Your task to perform on an android device: Open network settings Image 0: 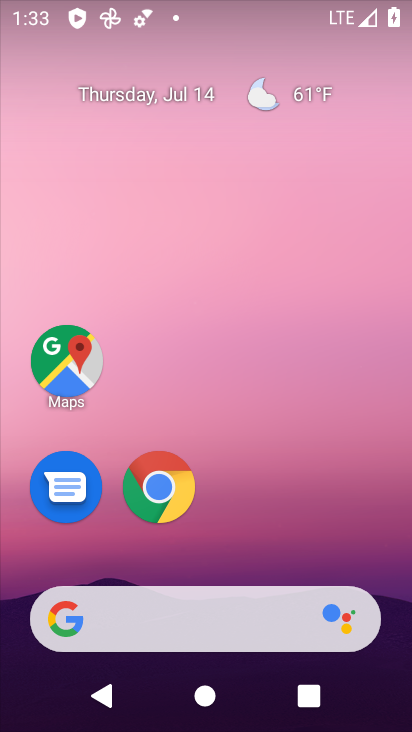
Step 0: drag from (354, 480) to (401, 118)
Your task to perform on an android device: Open network settings Image 1: 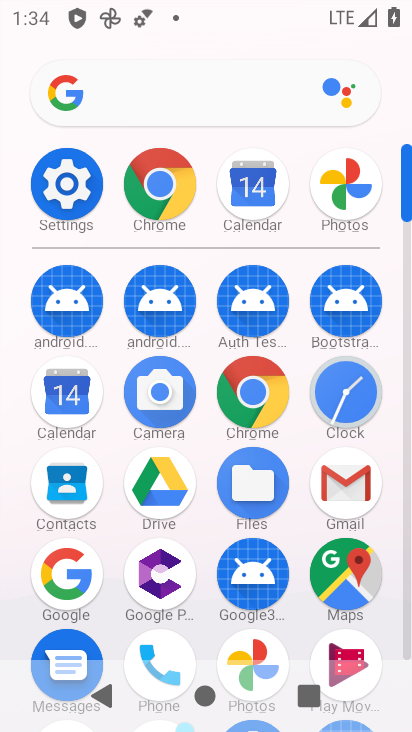
Step 1: click (70, 193)
Your task to perform on an android device: Open network settings Image 2: 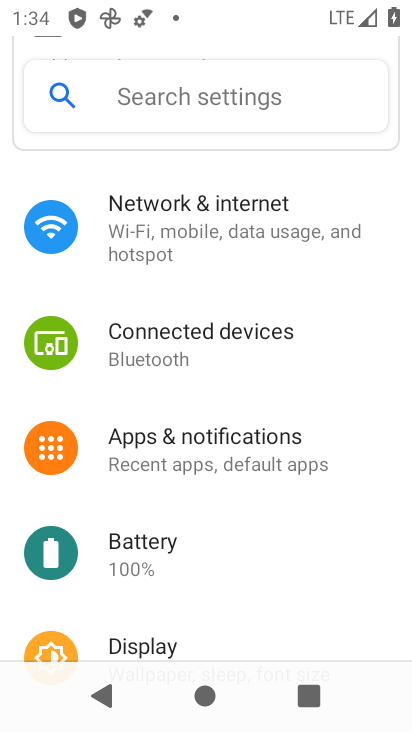
Step 2: drag from (350, 574) to (383, 276)
Your task to perform on an android device: Open network settings Image 3: 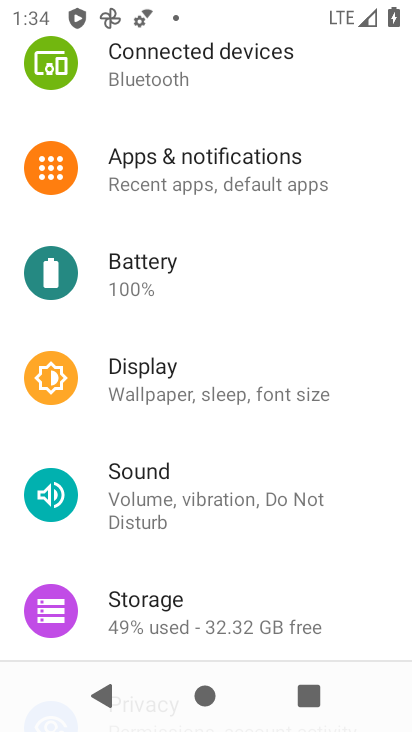
Step 3: drag from (355, 617) to (362, 487)
Your task to perform on an android device: Open network settings Image 4: 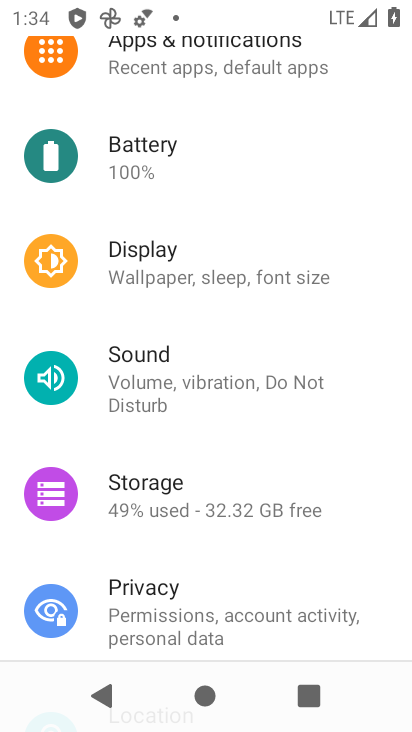
Step 4: drag from (364, 612) to (380, 463)
Your task to perform on an android device: Open network settings Image 5: 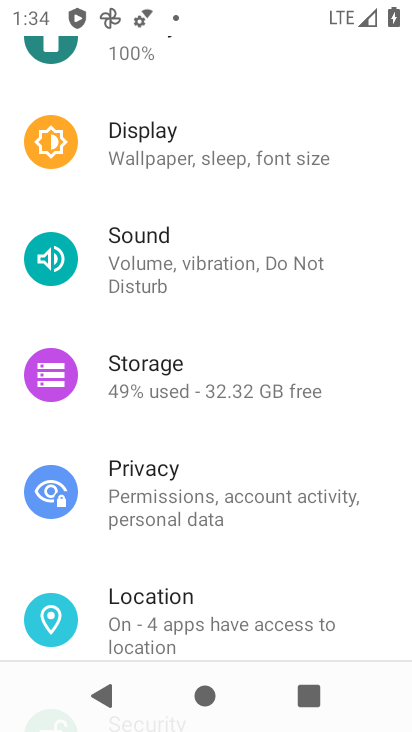
Step 5: drag from (335, 574) to (344, 370)
Your task to perform on an android device: Open network settings Image 6: 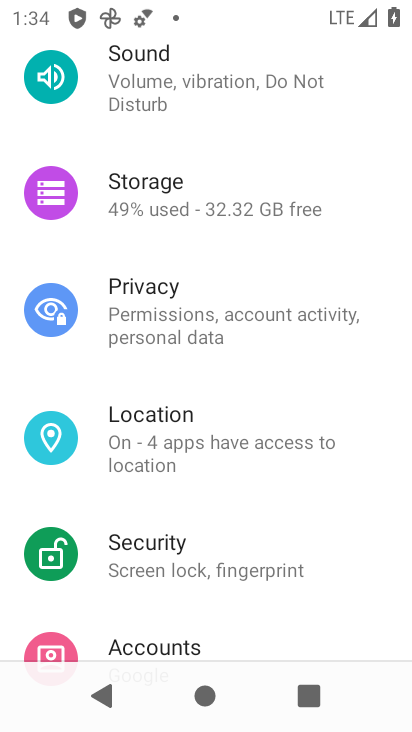
Step 6: drag from (367, 533) to (358, 308)
Your task to perform on an android device: Open network settings Image 7: 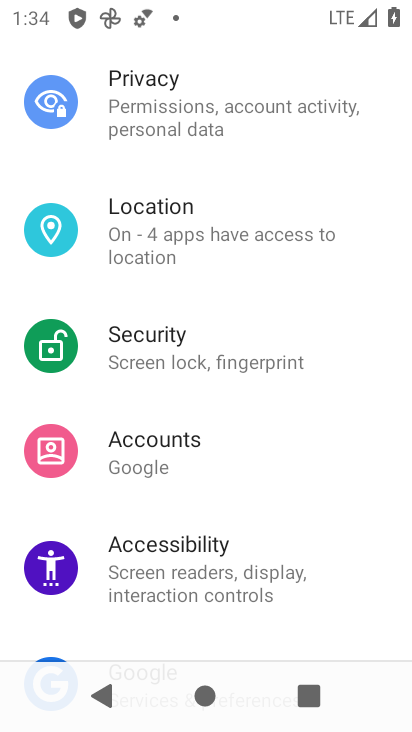
Step 7: drag from (360, 515) to (348, 326)
Your task to perform on an android device: Open network settings Image 8: 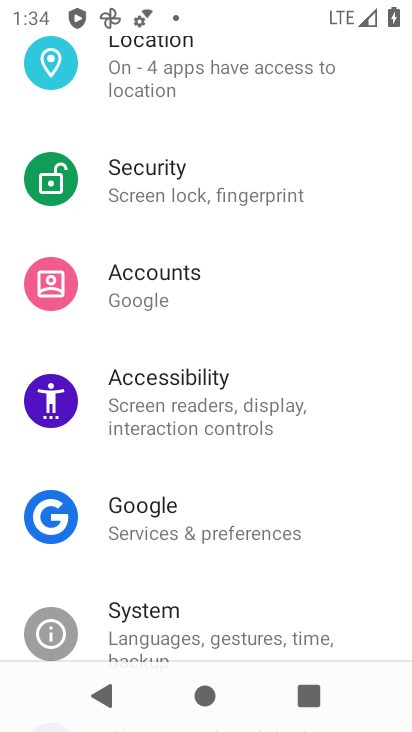
Step 8: drag from (331, 468) to (337, 276)
Your task to perform on an android device: Open network settings Image 9: 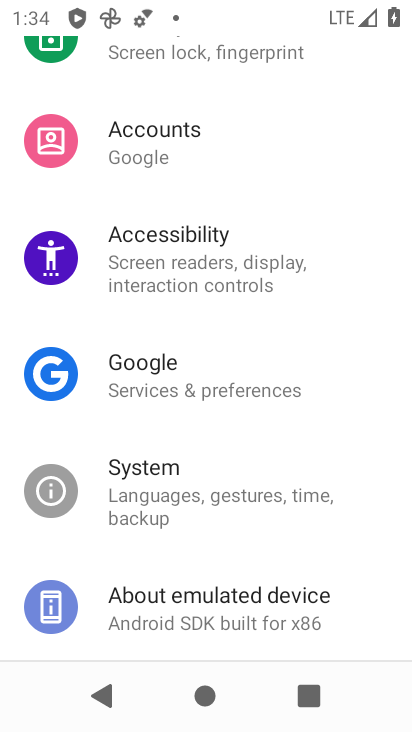
Step 9: drag from (349, 293) to (359, 407)
Your task to perform on an android device: Open network settings Image 10: 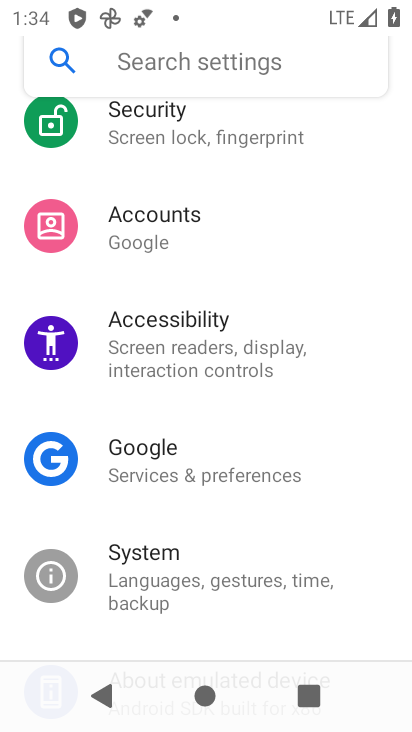
Step 10: drag from (351, 217) to (353, 395)
Your task to perform on an android device: Open network settings Image 11: 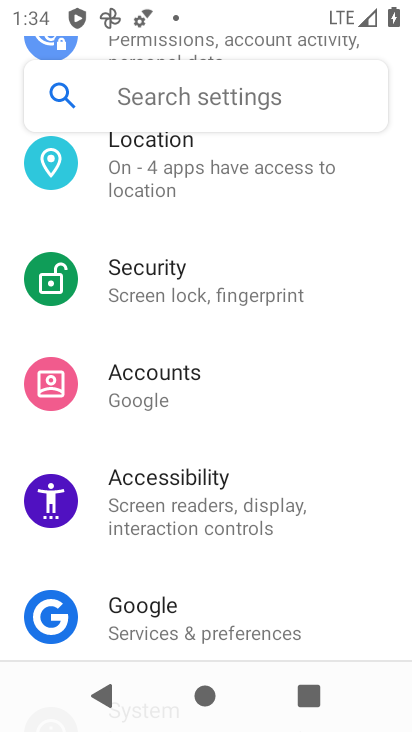
Step 11: drag from (357, 242) to (358, 412)
Your task to perform on an android device: Open network settings Image 12: 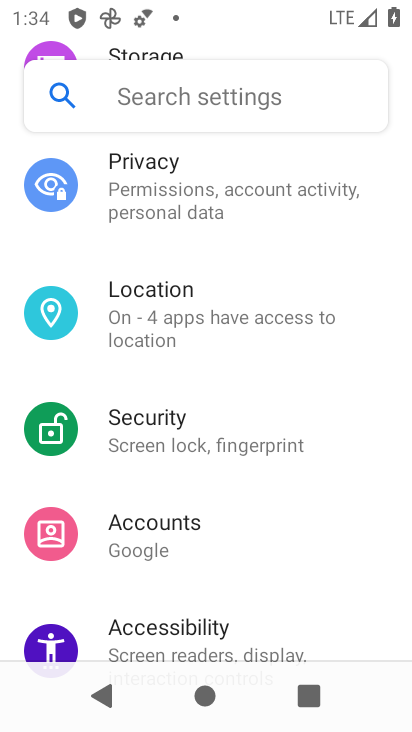
Step 12: drag from (360, 262) to (362, 423)
Your task to perform on an android device: Open network settings Image 13: 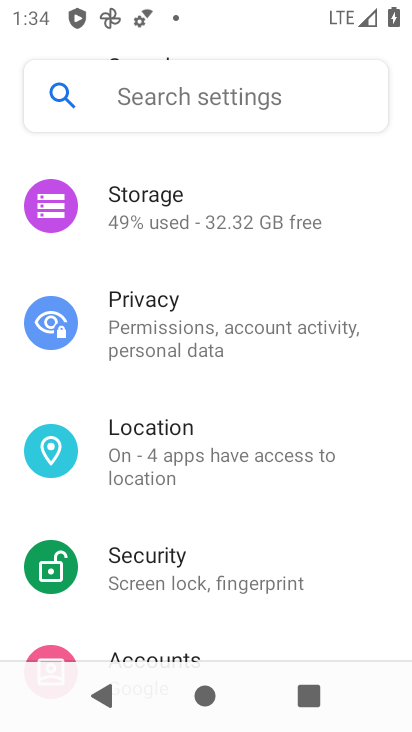
Step 13: drag from (364, 226) to (377, 407)
Your task to perform on an android device: Open network settings Image 14: 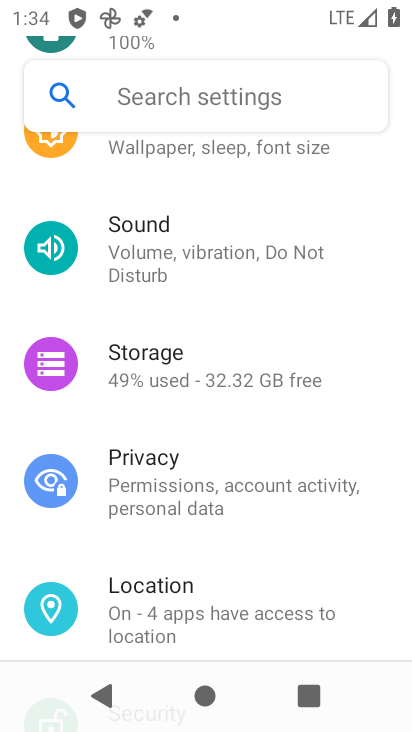
Step 14: drag from (371, 293) to (364, 452)
Your task to perform on an android device: Open network settings Image 15: 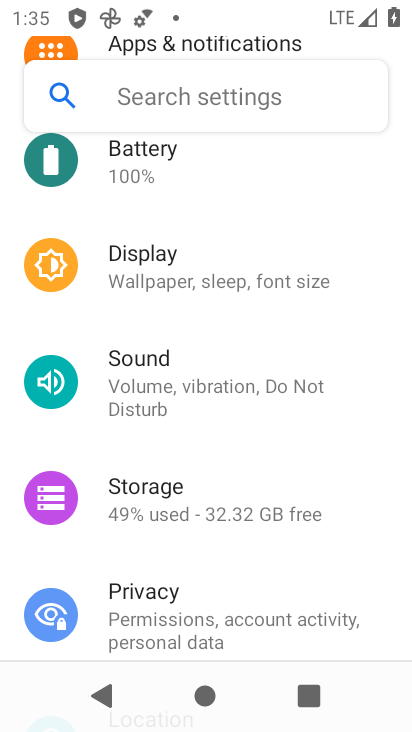
Step 15: drag from (356, 218) to (367, 378)
Your task to perform on an android device: Open network settings Image 16: 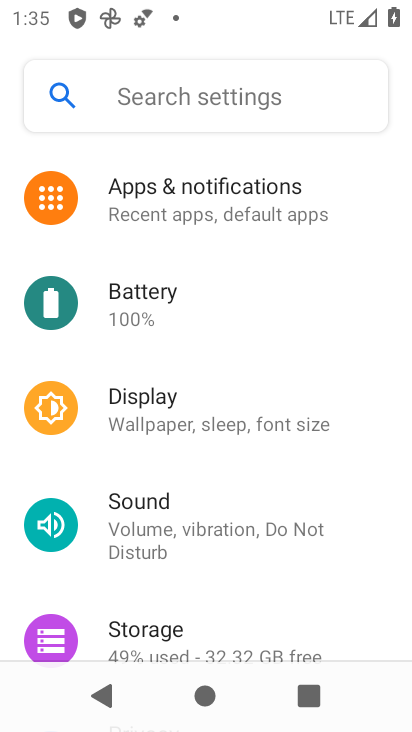
Step 16: drag from (361, 199) to (368, 404)
Your task to perform on an android device: Open network settings Image 17: 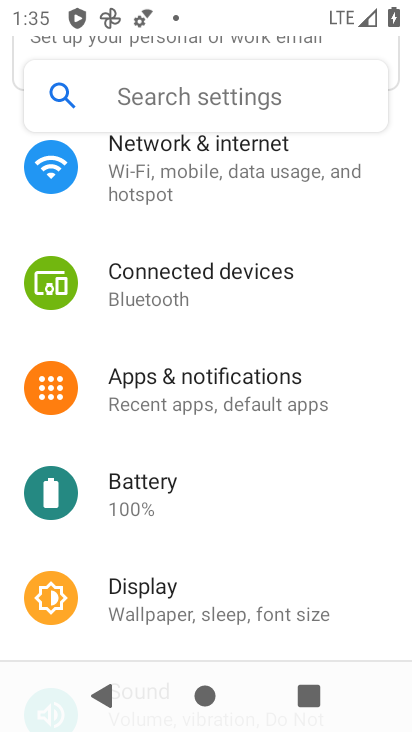
Step 17: drag from (357, 250) to (362, 369)
Your task to perform on an android device: Open network settings Image 18: 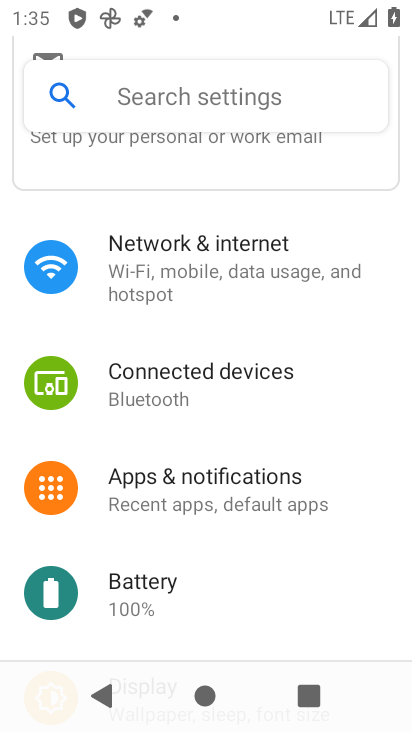
Step 18: click (323, 256)
Your task to perform on an android device: Open network settings Image 19: 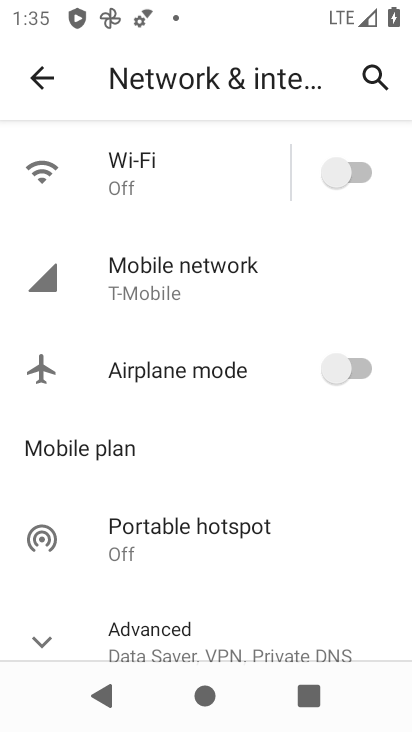
Step 19: task complete